Your task to perform on an android device: turn pop-ups off in chrome Image 0: 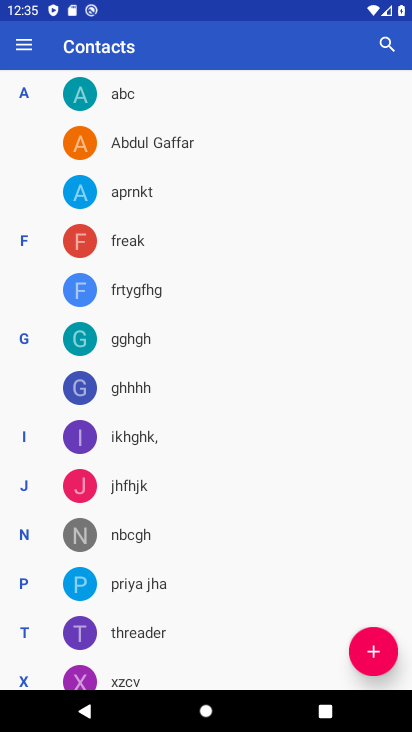
Step 0: press home button
Your task to perform on an android device: turn pop-ups off in chrome Image 1: 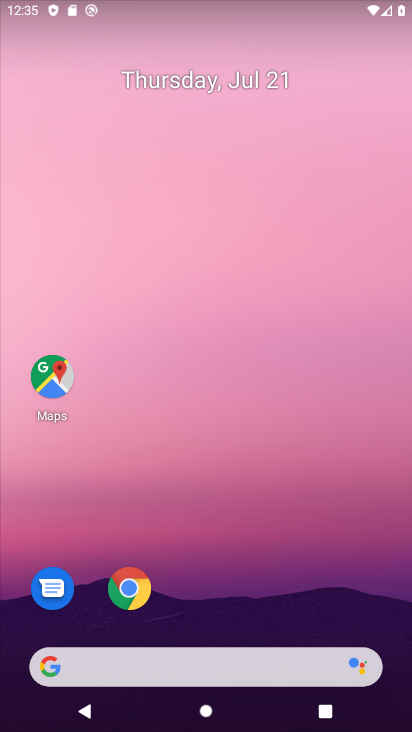
Step 1: click (115, 599)
Your task to perform on an android device: turn pop-ups off in chrome Image 2: 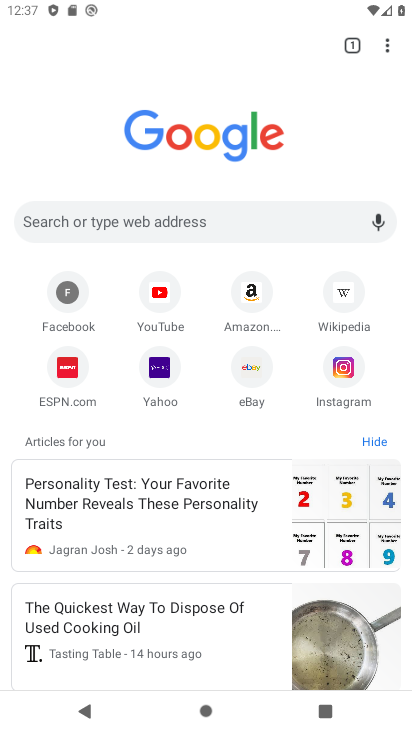
Step 2: task complete